Your task to perform on an android device: add a label to a message in the gmail app Image 0: 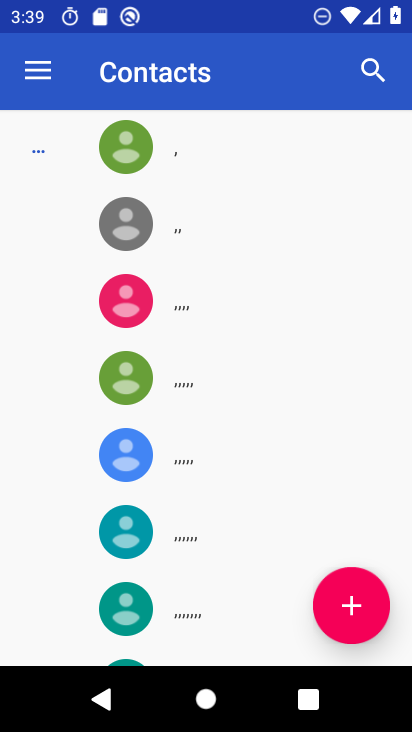
Step 0: press home button
Your task to perform on an android device: add a label to a message in the gmail app Image 1: 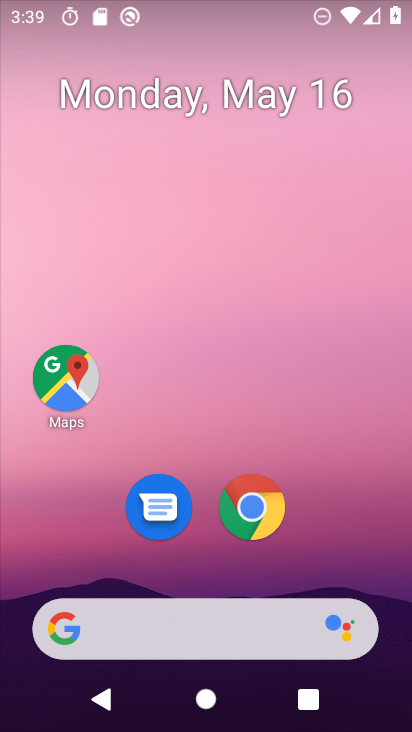
Step 1: drag from (374, 532) to (225, 9)
Your task to perform on an android device: add a label to a message in the gmail app Image 2: 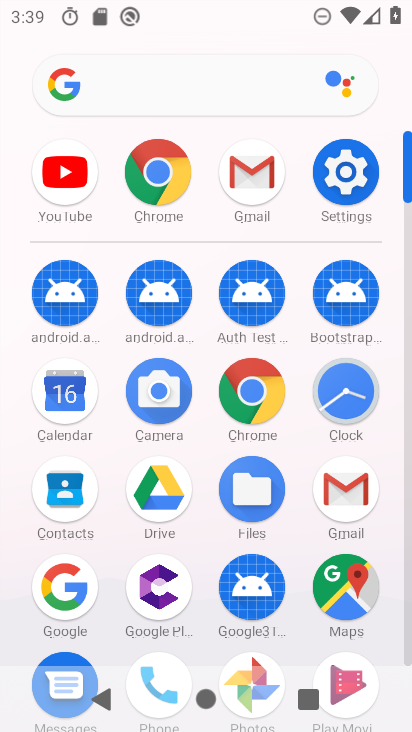
Step 2: click (248, 170)
Your task to perform on an android device: add a label to a message in the gmail app Image 3: 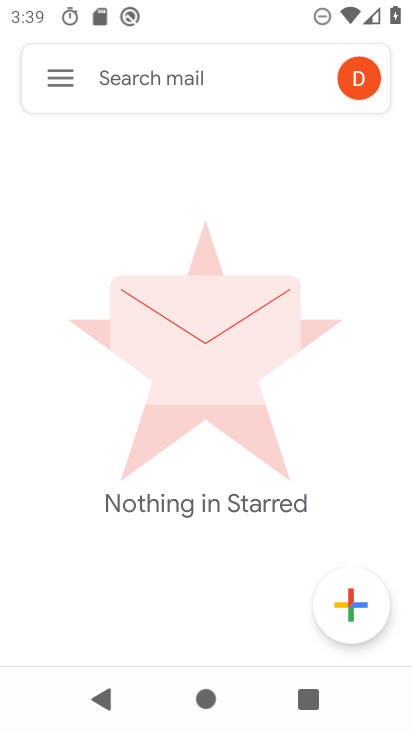
Step 3: click (79, 85)
Your task to perform on an android device: add a label to a message in the gmail app Image 4: 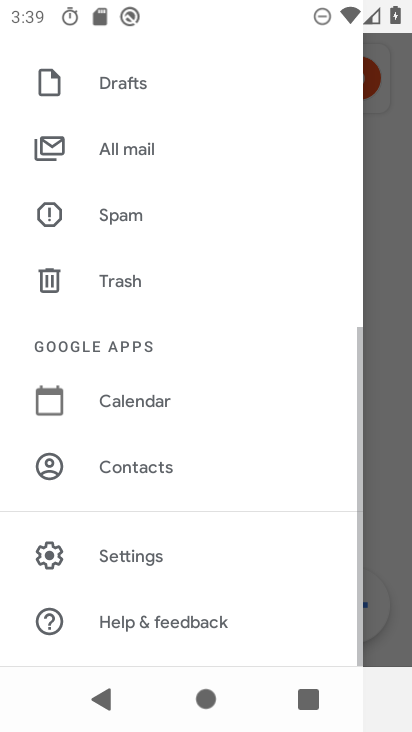
Step 4: drag from (182, 549) to (217, 191)
Your task to perform on an android device: add a label to a message in the gmail app Image 5: 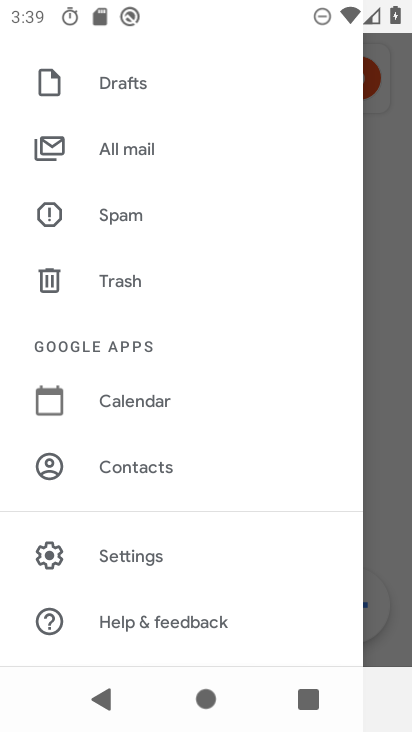
Step 5: click (178, 145)
Your task to perform on an android device: add a label to a message in the gmail app Image 6: 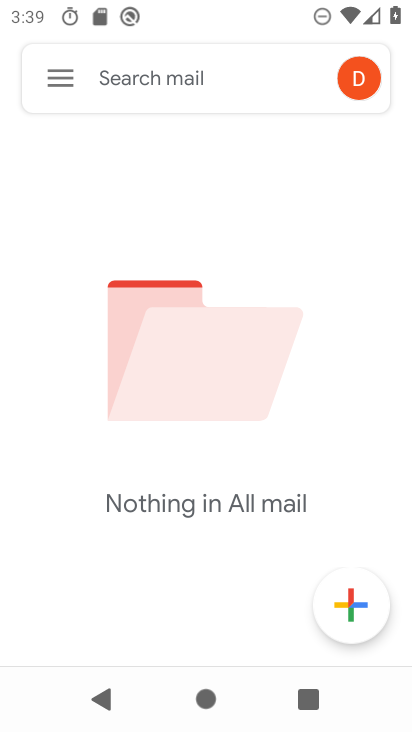
Step 6: task complete